Your task to perform on an android device: open a bookmark in the chrome app Image 0: 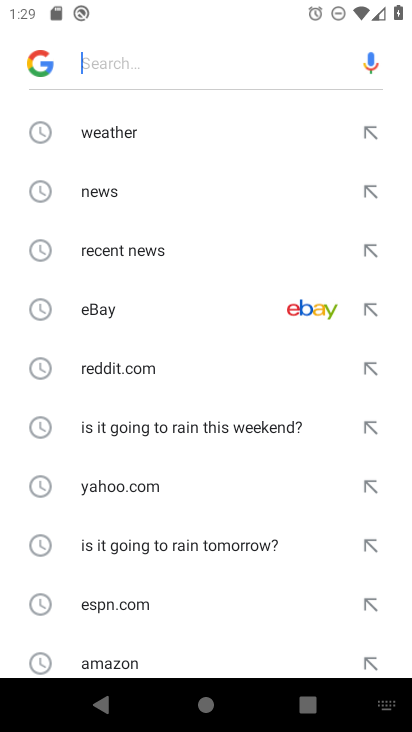
Step 0: press home button
Your task to perform on an android device: open a bookmark in the chrome app Image 1: 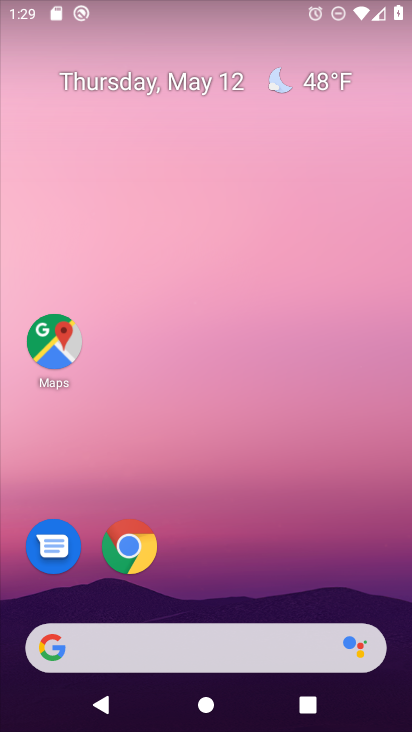
Step 1: drag from (226, 661) to (377, 141)
Your task to perform on an android device: open a bookmark in the chrome app Image 2: 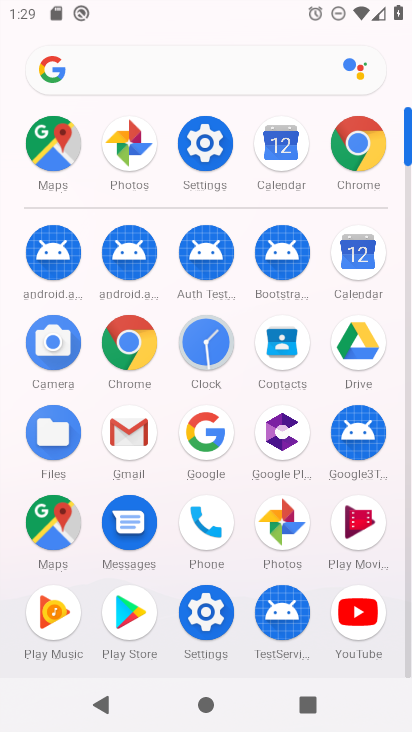
Step 2: click (359, 154)
Your task to perform on an android device: open a bookmark in the chrome app Image 3: 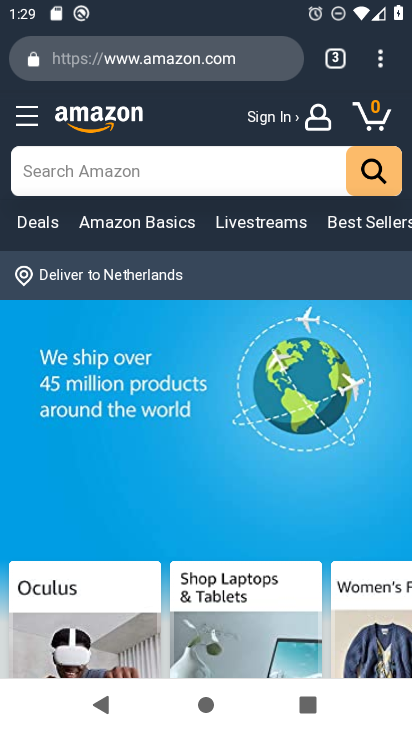
Step 3: task complete